Your task to perform on an android device: star an email in the gmail app Image 0: 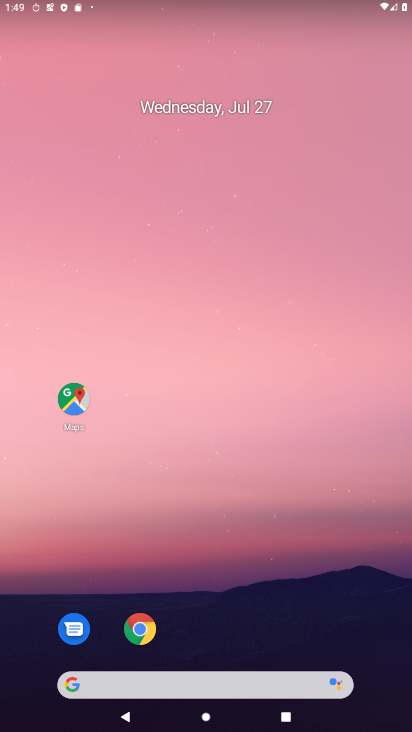
Step 0: drag from (372, 636) to (208, 27)
Your task to perform on an android device: star an email in the gmail app Image 1: 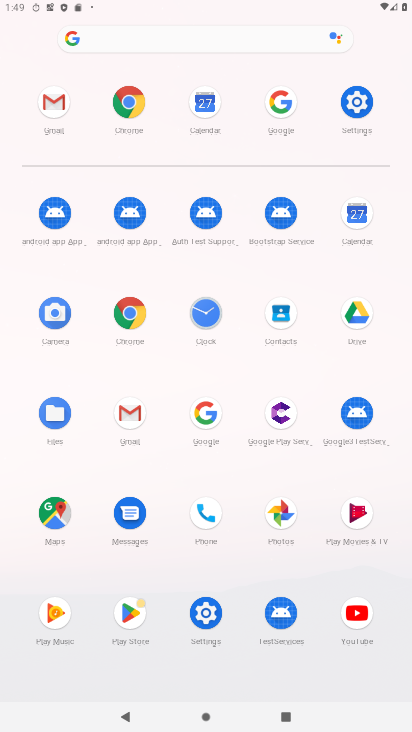
Step 1: click (128, 411)
Your task to perform on an android device: star an email in the gmail app Image 2: 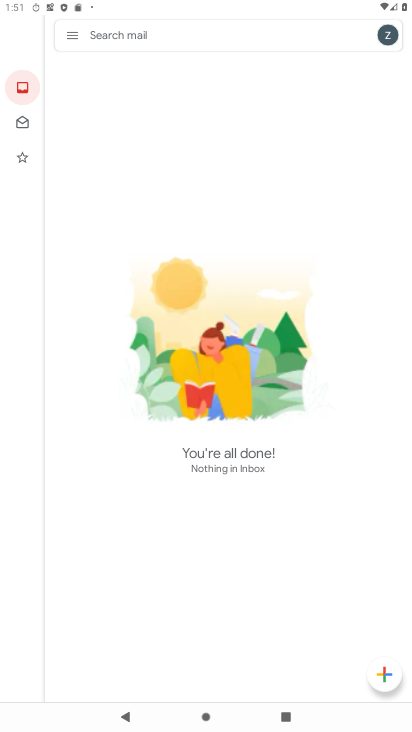
Step 2: task complete